Your task to perform on an android device: Check the weather Image 0: 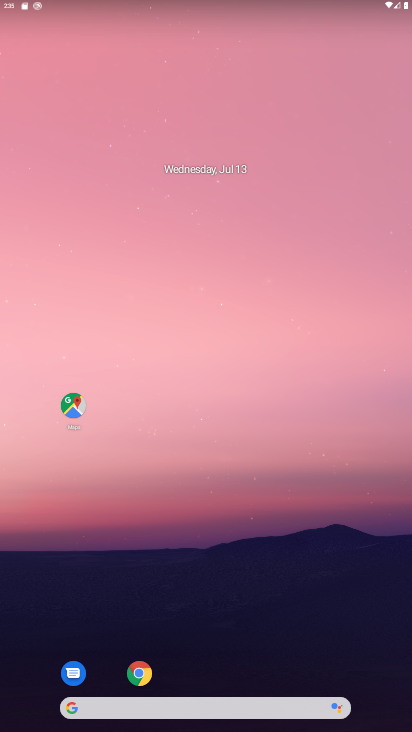
Step 0: drag from (232, 666) to (316, 217)
Your task to perform on an android device: Check the weather Image 1: 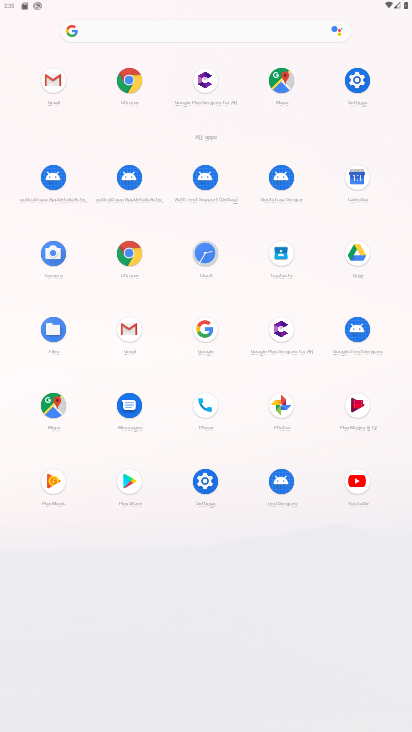
Step 1: click (198, 325)
Your task to perform on an android device: Check the weather Image 2: 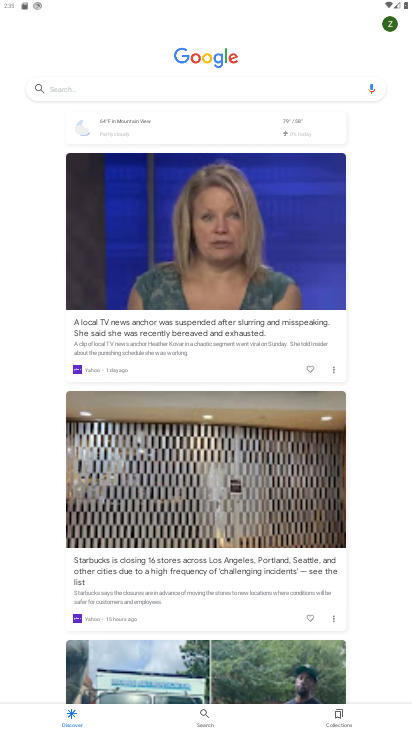
Step 2: click (222, 138)
Your task to perform on an android device: Check the weather Image 3: 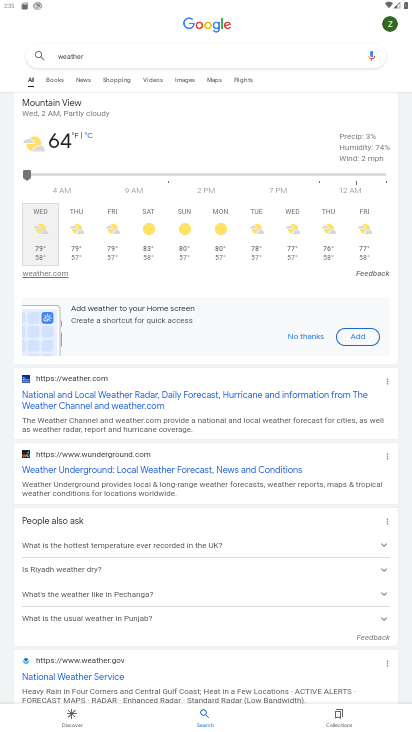
Step 3: task complete